Your task to perform on an android device: check data usage Image 0: 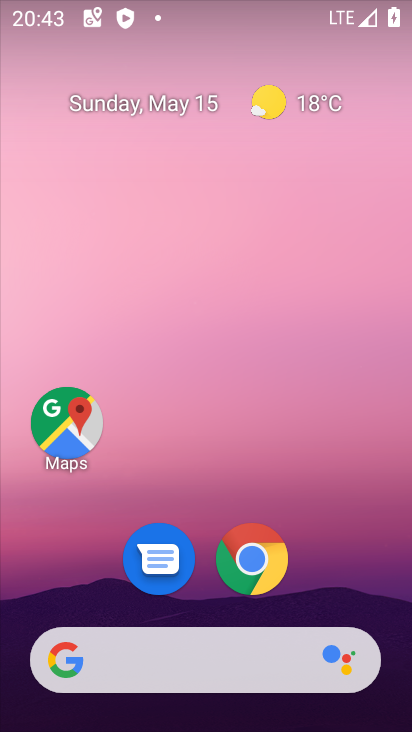
Step 0: drag from (290, 458) to (143, 74)
Your task to perform on an android device: check data usage Image 1: 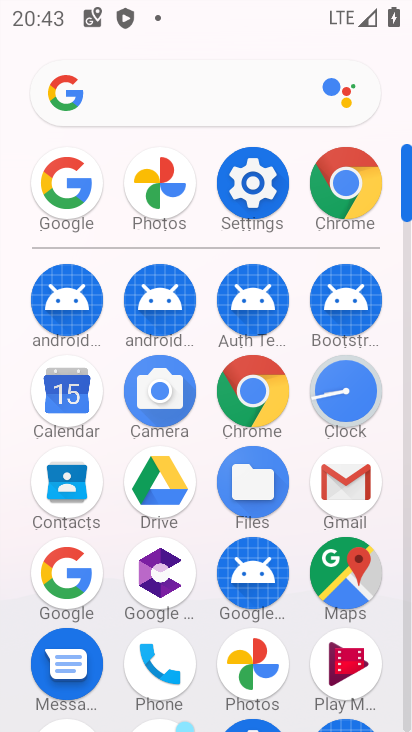
Step 1: click (247, 183)
Your task to perform on an android device: check data usage Image 2: 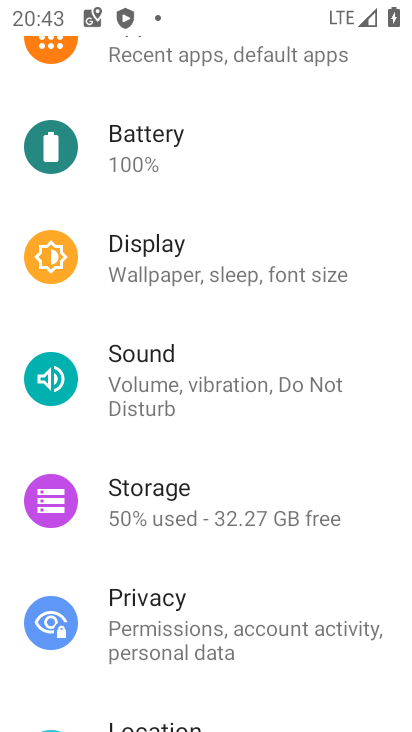
Step 2: drag from (190, 211) to (243, 729)
Your task to perform on an android device: check data usage Image 3: 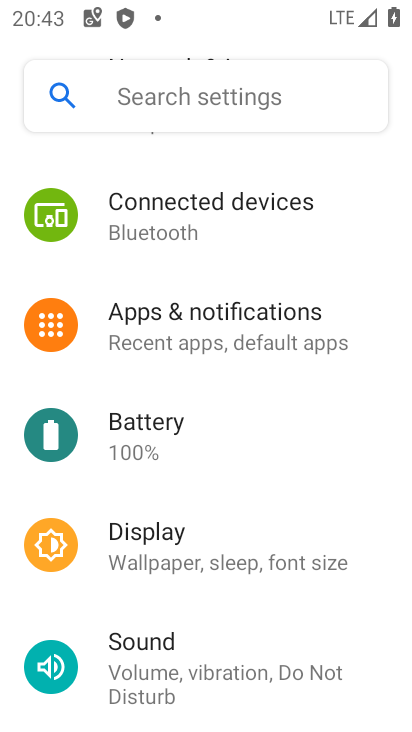
Step 3: drag from (213, 270) to (188, 654)
Your task to perform on an android device: check data usage Image 4: 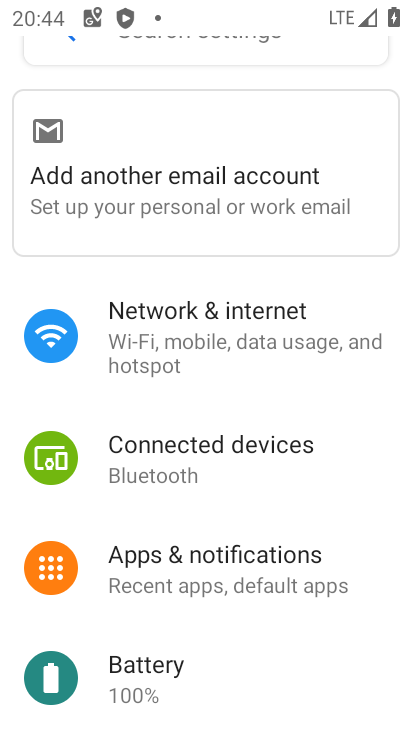
Step 4: click (200, 318)
Your task to perform on an android device: check data usage Image 5: 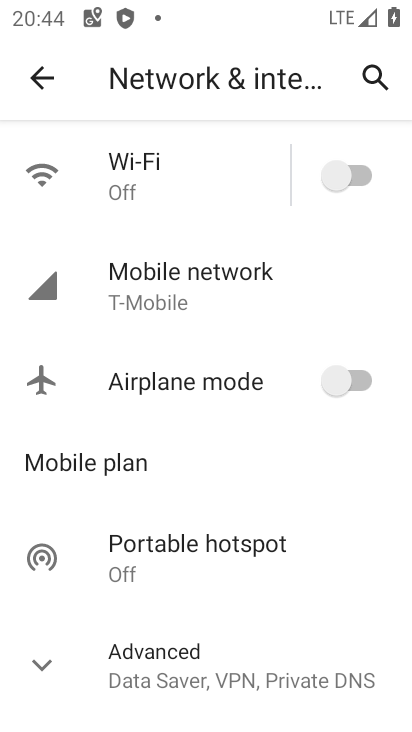
Step 5: click (162, 269)
Your task to perform on an android device: check data usage Image 6: 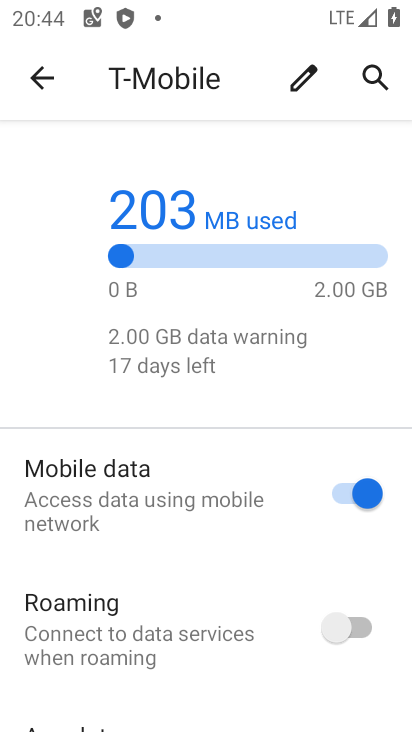
Step 6: task complete